Your task to perform on an android device: Open Chrome and go to the settings page Image 0: 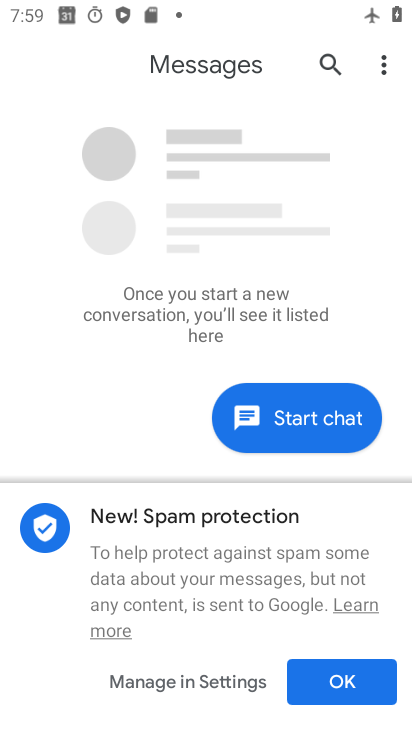
Step 0: press back button
Your task to perform on an android device: Open Chrome and go to the settings page Image 1: 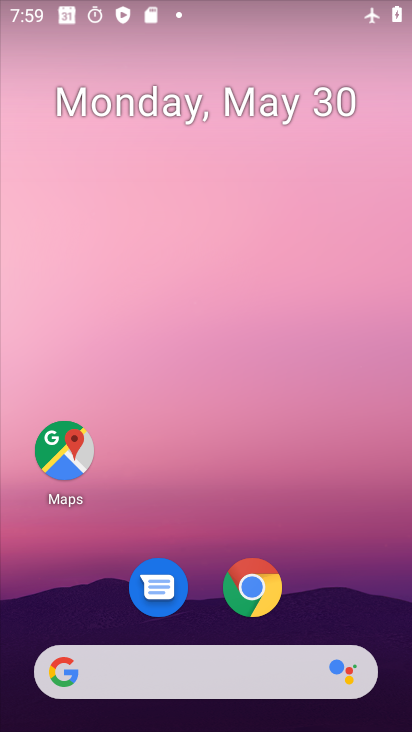
Step 1: drag from (360, 586) to (262, 8)
Your task to perform on an android device: Open Chrome and go to the settings page Image 2: 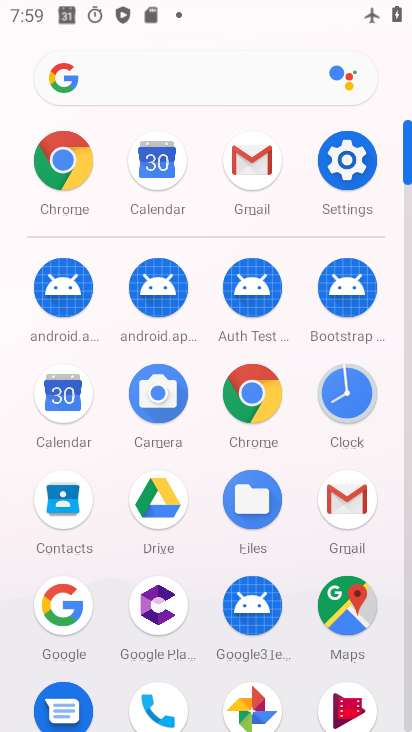
Step 2: drag from (16, 574) to (7, 189)
Your task to perform on an android device: Open Chrome and go to the settings page Image 3: 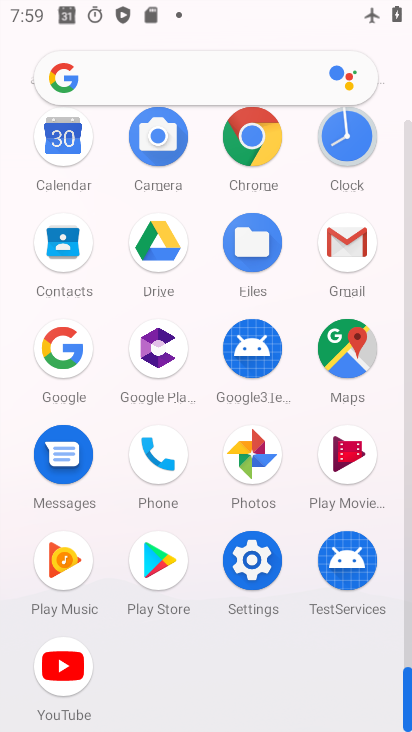
Step 3: click (248, 130)
Your task to perform on an android device: Open Chrome and go to the settings page Image 4: 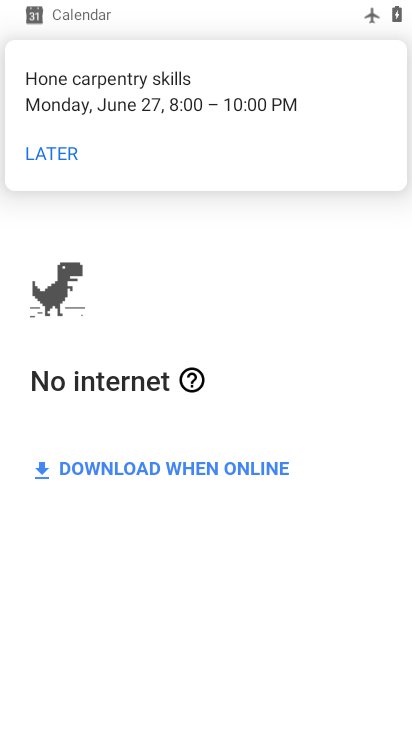
Step 4: click (65, 155)
Your task to perform on an android device: Open Chrome and go to the settings page Image 5: 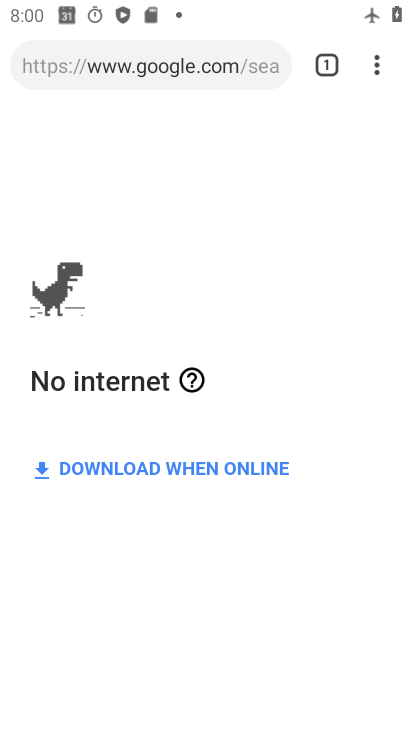
Step 5: task complete